Your task to perform on an android device: choose inbox layout in the gmail app Image 0: 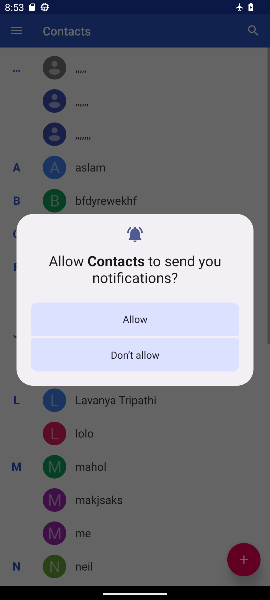
Step 0: press home button
Your task to perform on an android device: choose inbox layout in the gmail app Image 1: 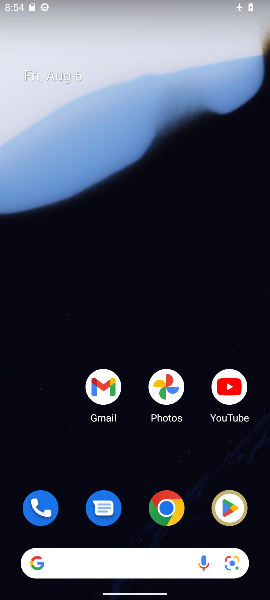
Step 1: drag from (206, 317) to (158, 6)
Your task to perform on an android device: choose inbox layout in the gmail app Image 2: 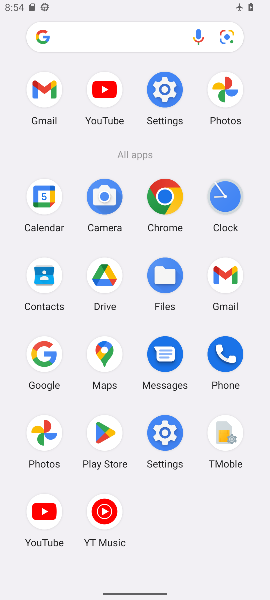
Step 2: click (228, 274)
Your task to perform on an android device: choose inbox layout in the gmail app Image 3: 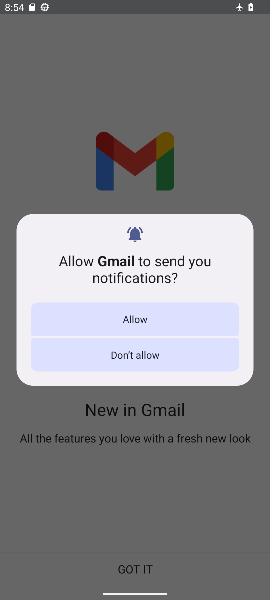
Step 3: click (164, 320)
Your task to perform on an android device: choose inbox layout in the gmail app Image 4: 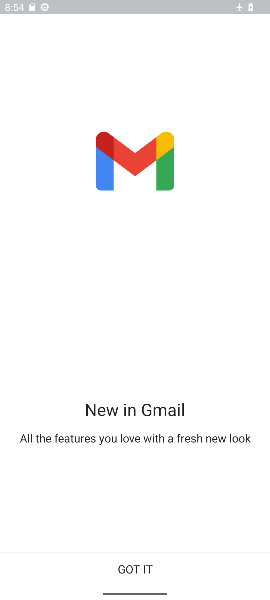
Step 4: click (149, 563)
Your task to perform on an android device: choose inbox layout in the gmail app Image 5: 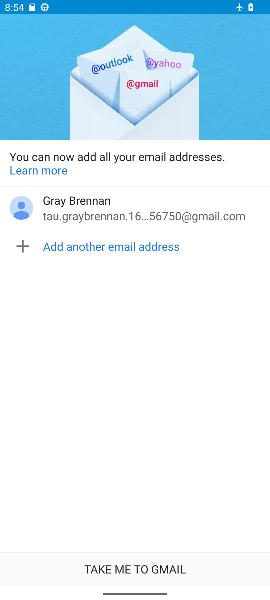
Step 5: click (123, 567)
Your task to perform on an android device: choose inbox layout in the gmail app Image 6: 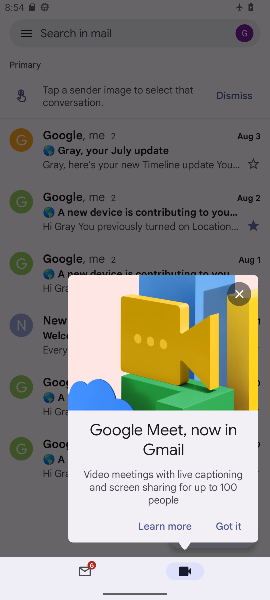
Step 6: click (244, 294)
Your task to perform on an android device: choose inbox layout in the gmail app Image 7: 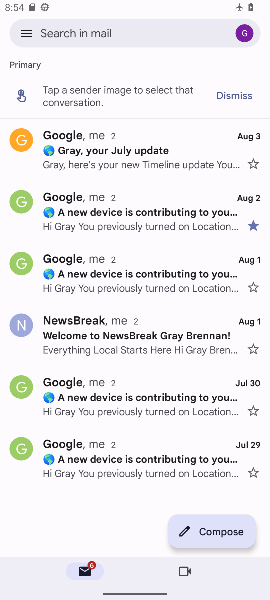
Step 7: click (28, 35)
Your task to perform on an android device: choose inbox layout in the gmail app Image 8: 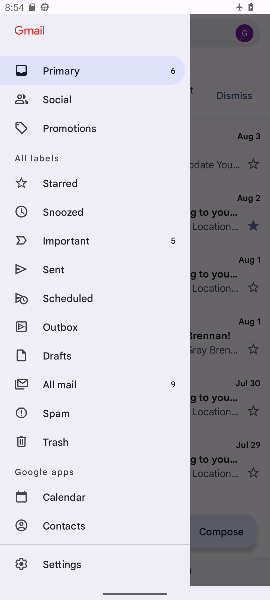
Step 8: drag from (139, 506) to (132, 322)
Your task to perform on an android device: choose inbox layout in the gmail app Image 9: 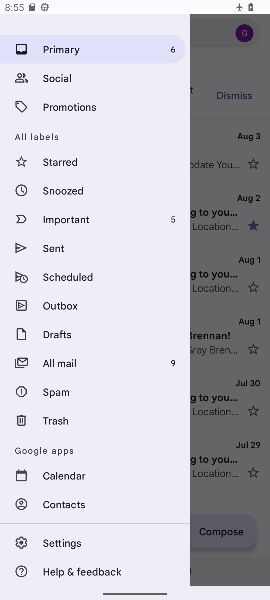
Step 9: click (76, 538)
Your task to perform on an android device: choose inbox layout in the gmail app Image 10: 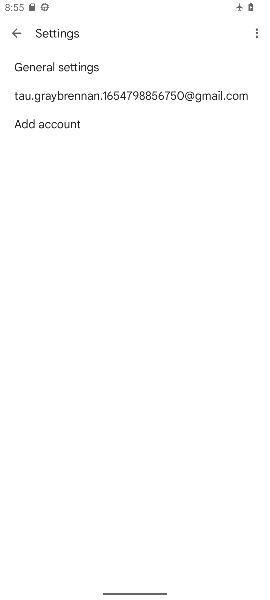
Step 10: click (146, 97)
Your task to perform on an android device: choose inbox layout in the gmail app Image 11: 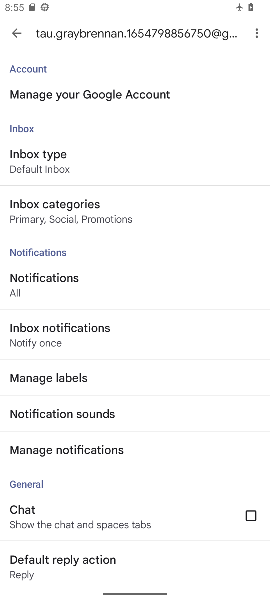
Step 11: press home button
Your task to perform on an android device: choose inbox layout in the gmail app Image 12: 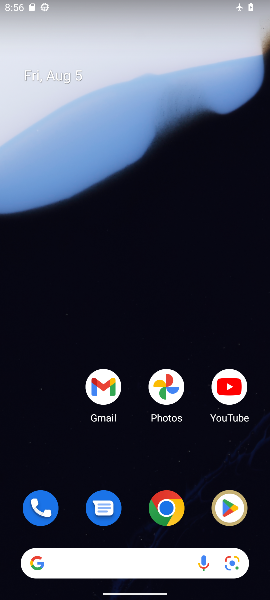
Step 12: drag from (151, 470) to (145, 178)
Your task to perform on an android device: choose inbox layout in the gmail app Image 13: 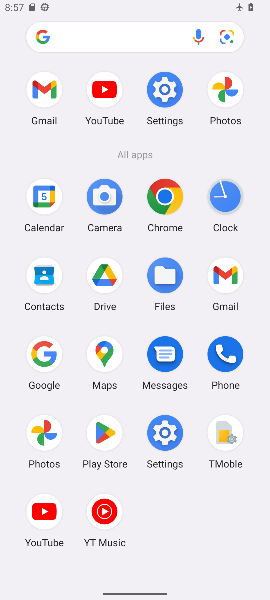
Step 13: click (220, 278)
Your task to perform on an android device: choose inbox layout in the gmail app Image 14: 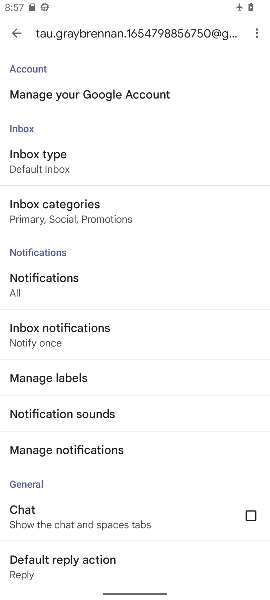
Step 14: click (36, 152)
Your task to perform on an android device: choose inbox layout in the gmail app Image 15: 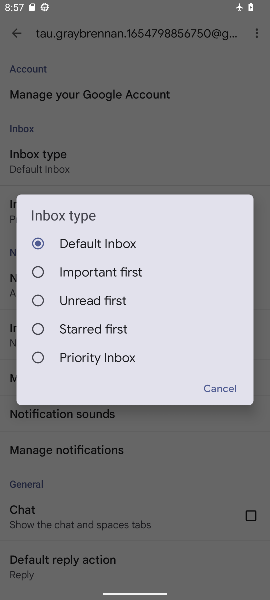
Step 15: click (100, 246)
Your task to perform on an android device: choose inbox layout in the gmail app Image 16: 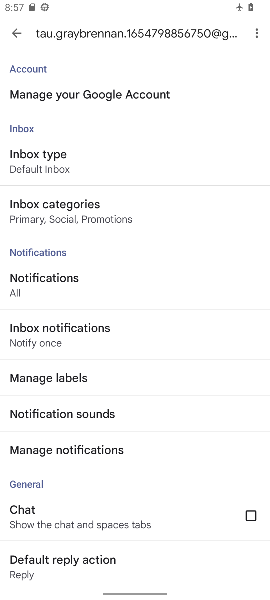
Step 16: click (66, 222)
Your task to perform on an android device: choose inbox layout in the gmail app Image 17: 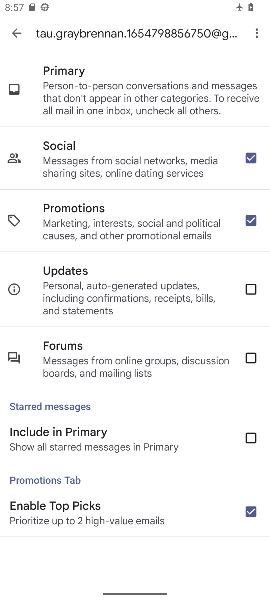
Step 17: click (248, 217)
Your task to perform on an android device: choose inbox layout in the gmail app Image 18: 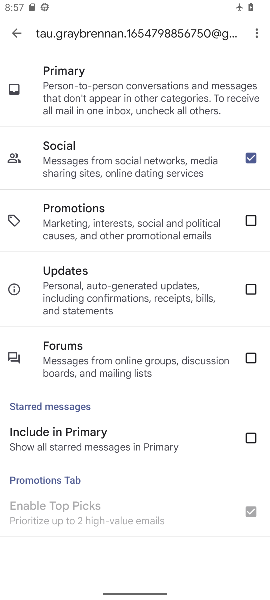
Step 18: click (254, 153)
Your task to perform on an android device: choose inbox layout in the gmail app Image 19: 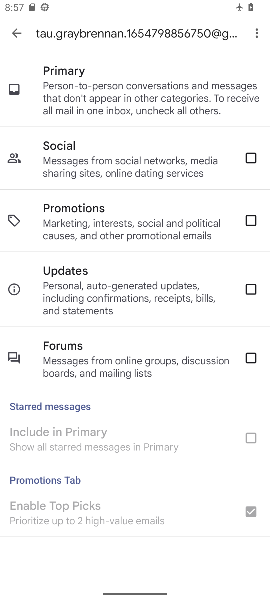
Step 19: task complete